Your task to perform on an android device: Open Yahoo.com Image 0: 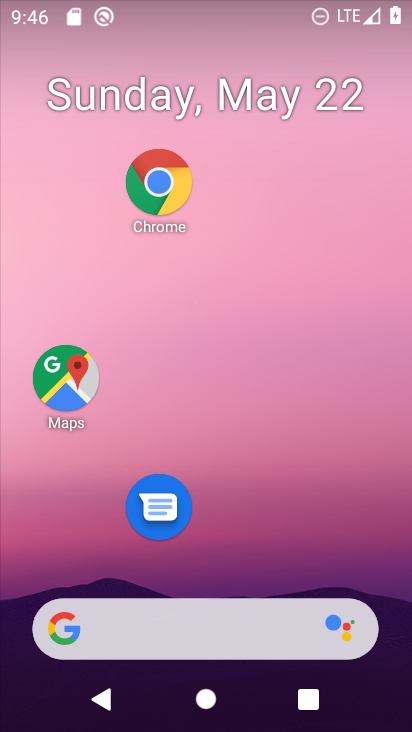
Step 0: click (162, 623)
Your task to perform on an android device: Open Yahoo.com Image 1: 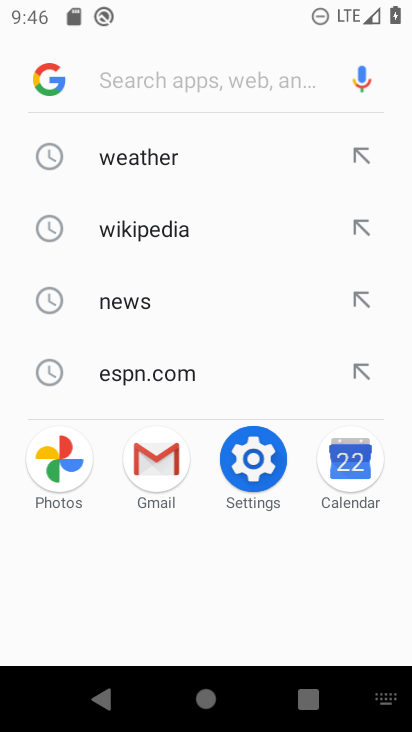
Step 1: type "yahoo.com"
Your task to perform on an android device: Open Yahoo.com Image 2: 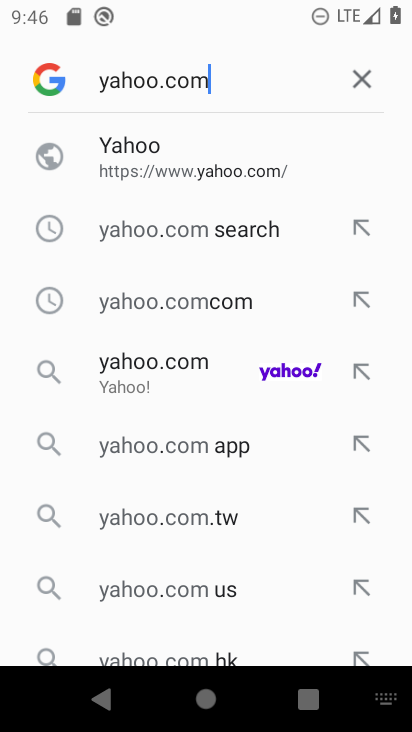
Step 2: click (178, 128)
Your task to perform on an android device: Open Yahoo.com Image 3: 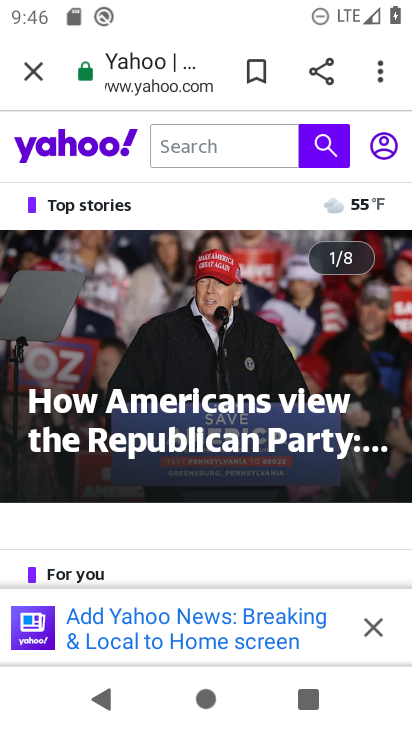
Step 3: task complete